Your task to perform on an android device: Open the Play Movies app and select the watchlist tab. Image 0: 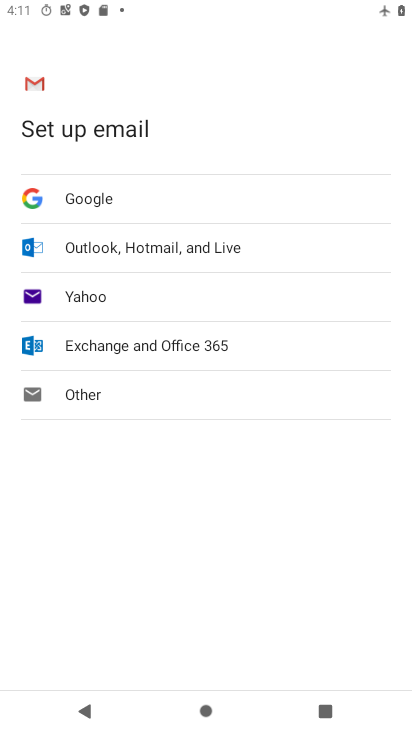
Step 0: press home button
Your task to perform on an android device: Open the Play Movies app and select the watchlist tab. Image 1: 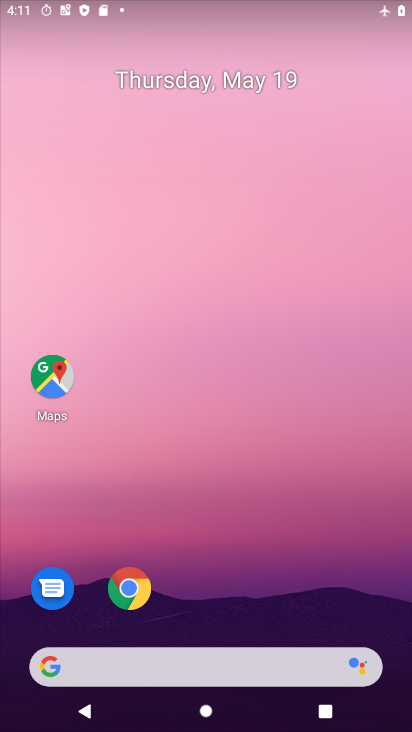
Step 1: drag from (199, 604) to (232, 216)
Your task to perform on an android device: Open the Play Movies app and select the watchlist tab. Image 2: 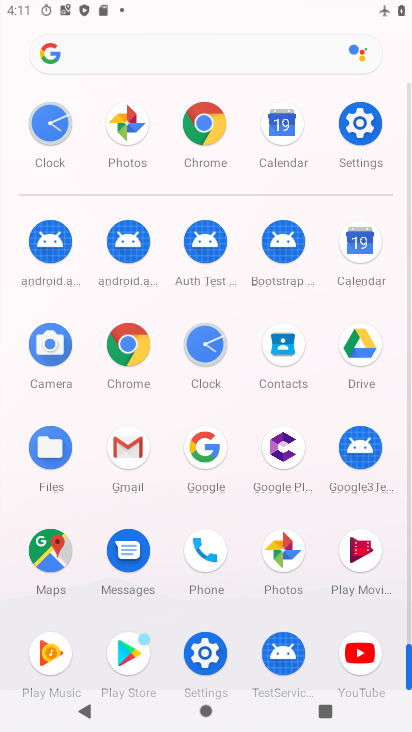
Step 2: click (362, 583)
Your task to perform on an android device: Open the Play Movies app and select the watchlist tab. Image 3: 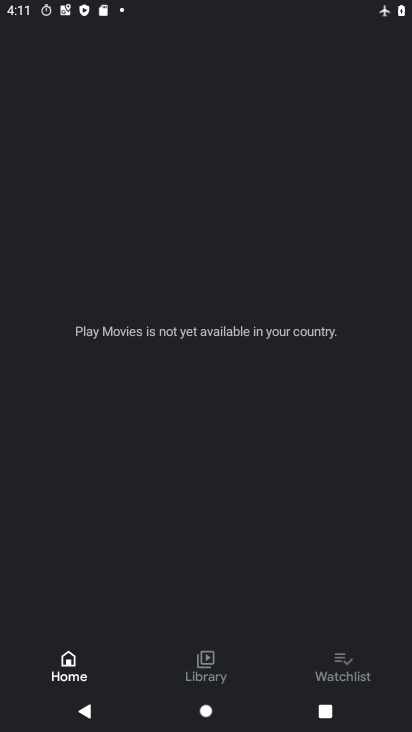
Step 3: click (348, 665)
Your task to perform on an android device: Open the Play Movies app and select the watchlist tab. Image 4: 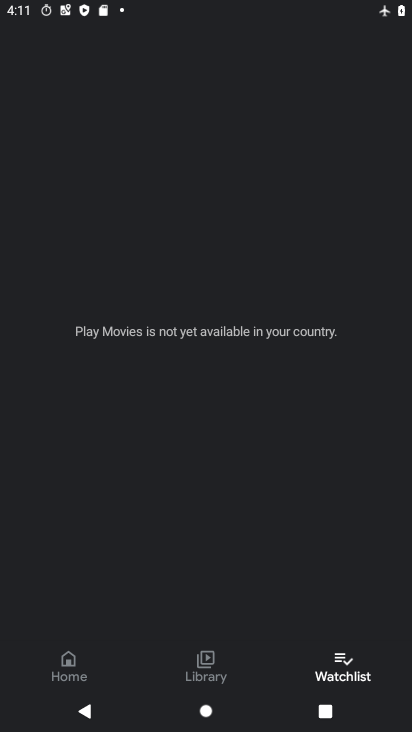
Step 4: task complete